Your task to perform on an android device: Go to Reddit.com Image 0: 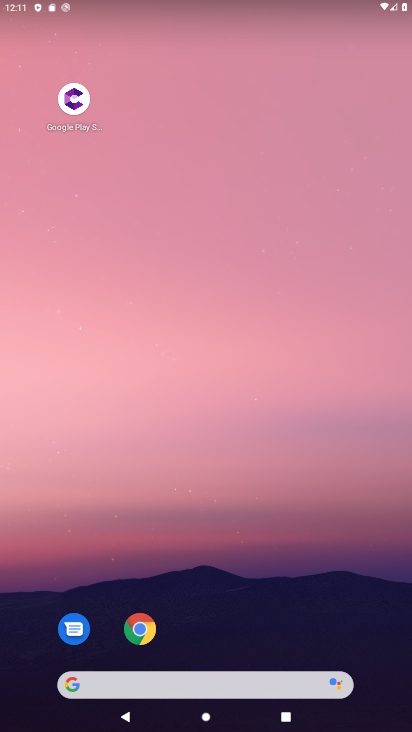
Step 0: drag from (254, 685) to (319, 69)
Your task to perform on an android device: Go to Reddit.com Image 1: 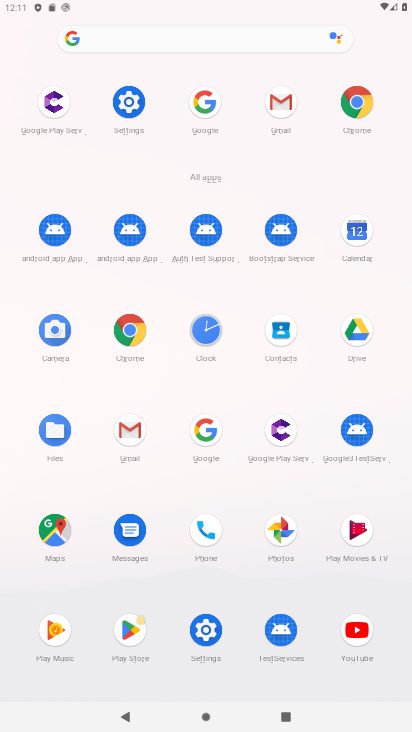
Step 1: click (134, 331)
Your task to perform on an android device: Go to Reddit.com Image 2: 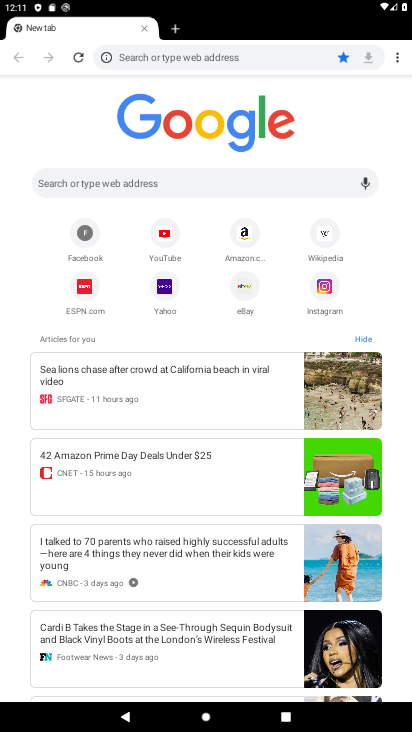
Step 2: click (262, 178)
Your task to perform on an android device: Go to Reddit.com Image 3: 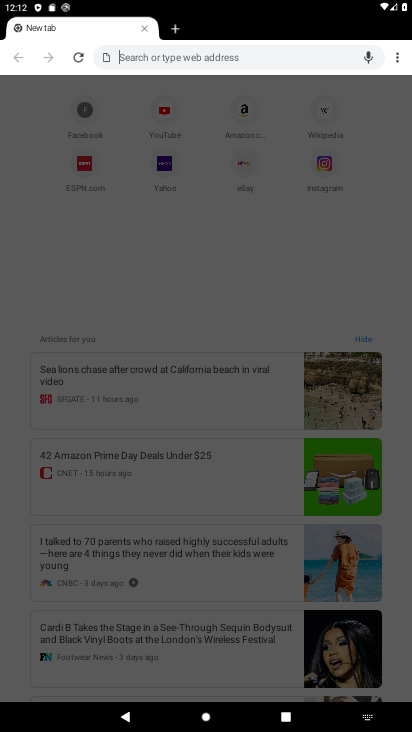
Step 3: type "reddit.com"
Your task to perform on an android device: Go to Reddit.com Image 4: 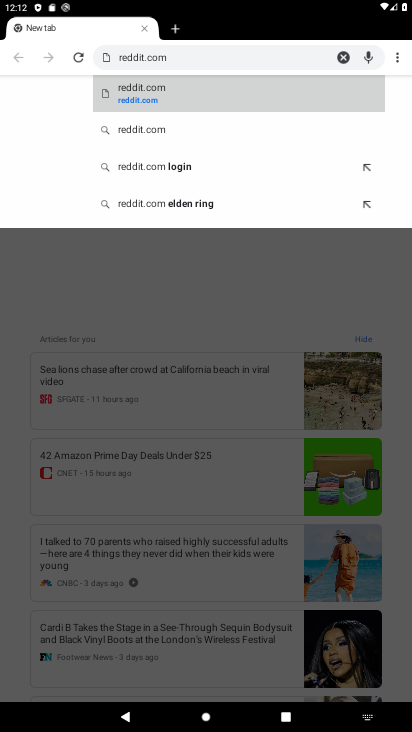
Step 4: click (168, 96)
Your task to perform on an android device: Go to Reddit.com Image 5: 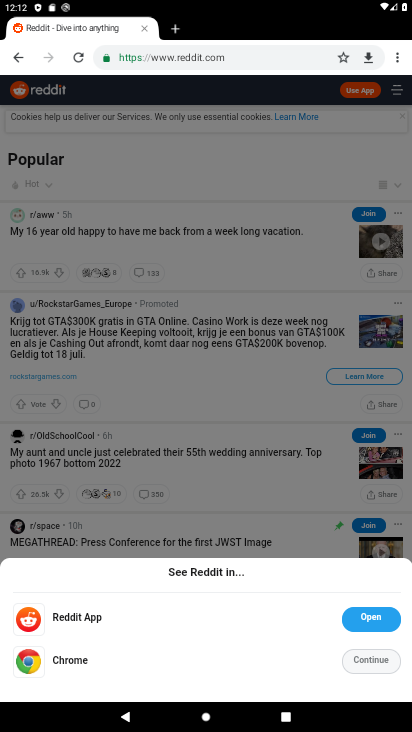
Step 5: task complete